Your task to perform on an android device: open app "ColorNote Notepad Notes" Image 0: 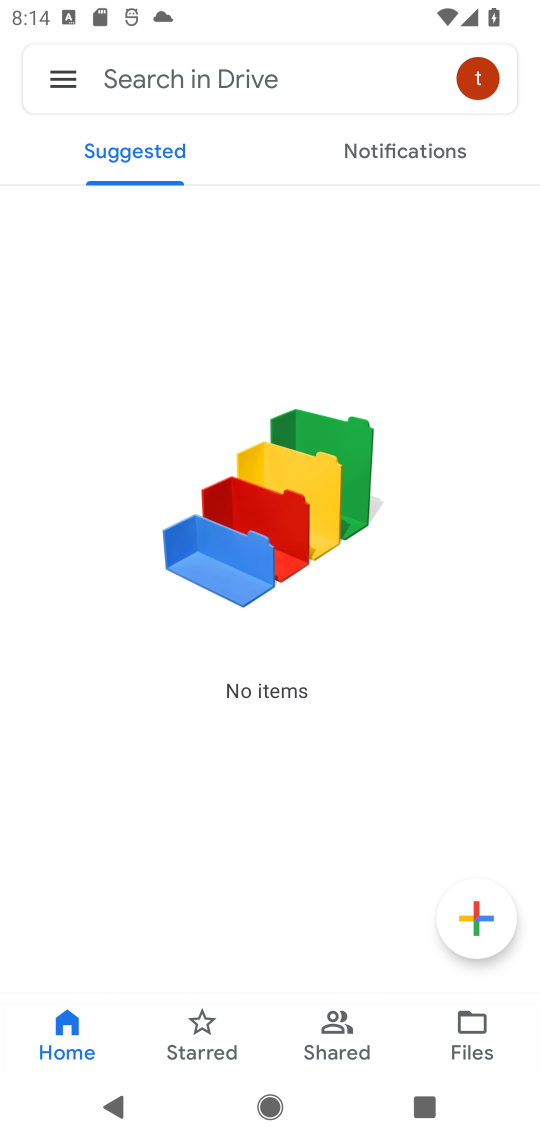
Step 0: press home button
Your task to perform on an android device: open app "ColorNote Notepad Notes" Image 1: 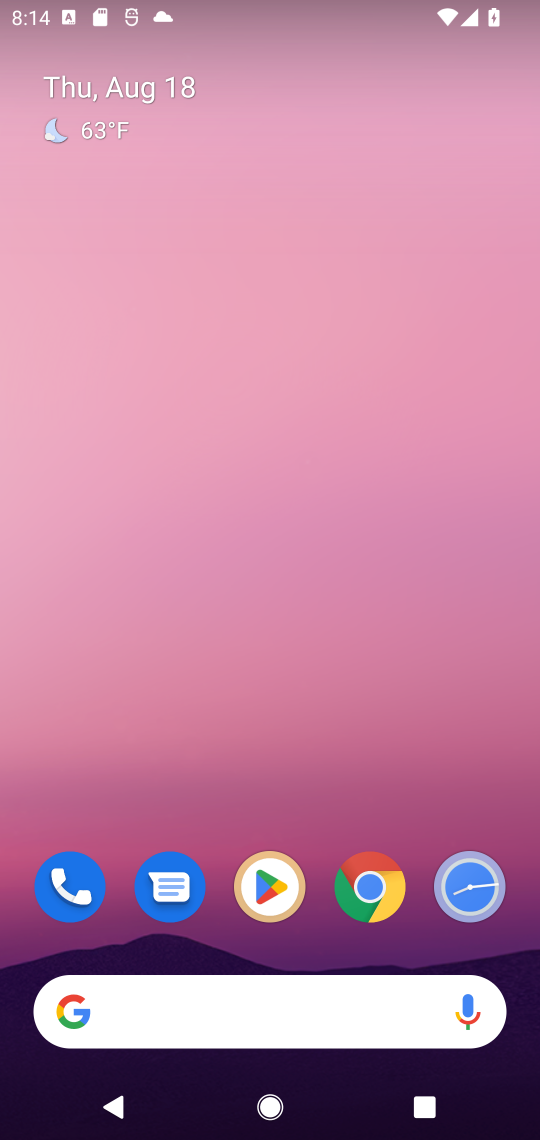
Step 1: click (266, 898)
Your task to perform on an android device: open app "ColorNote Notepad Notes" Image 2: 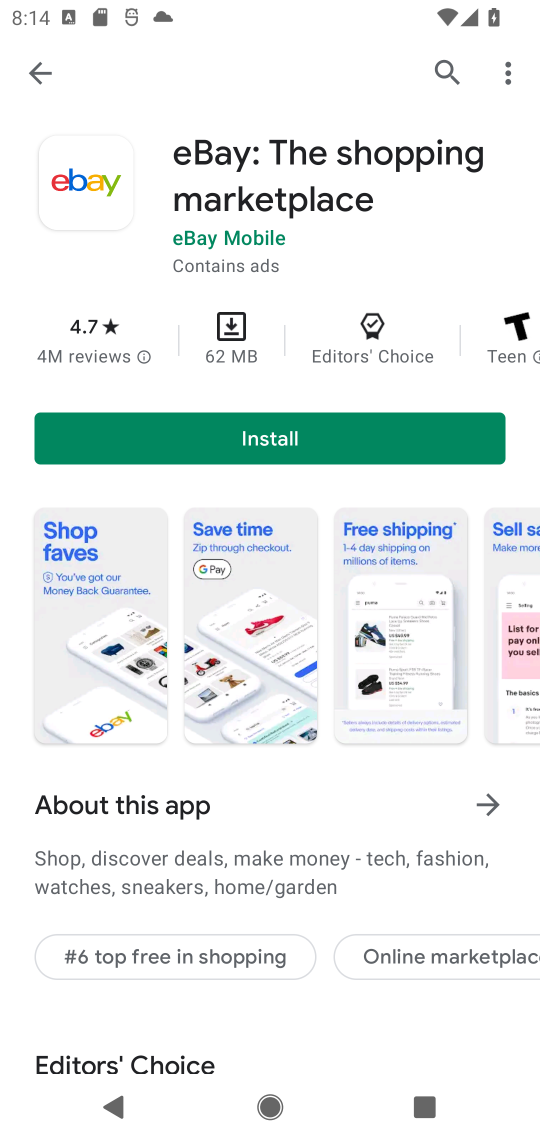
Step 2: click (448, 68)
Your task to perform on an android device: open app "ColorNote Notepad Notes" Image 3: 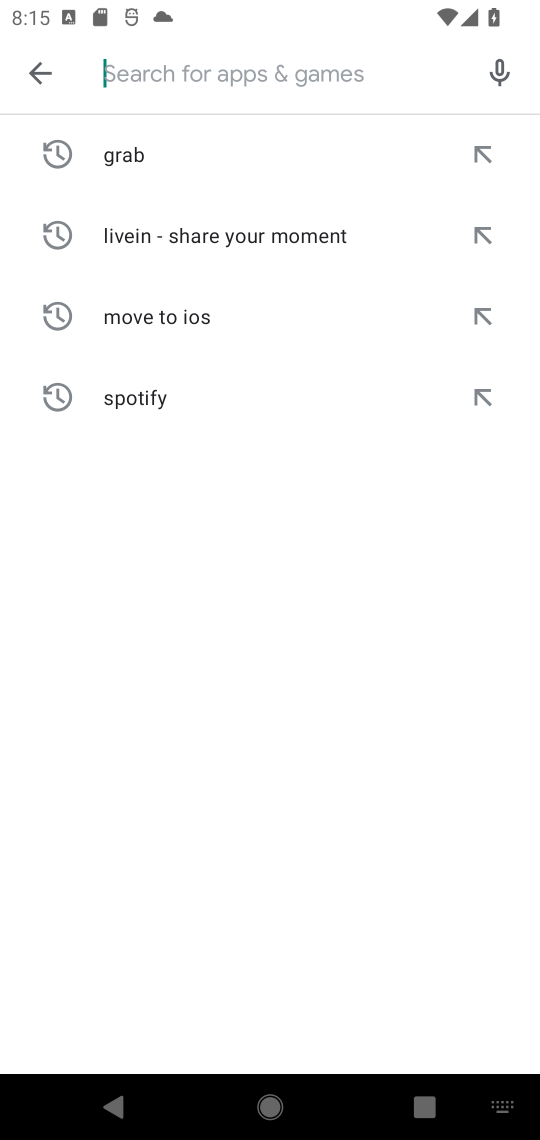
Step 3: type "ColorNote Notepad Notes"
Your task to perform on an android device: open app "ColorNote Notepad Notes" Image 4: 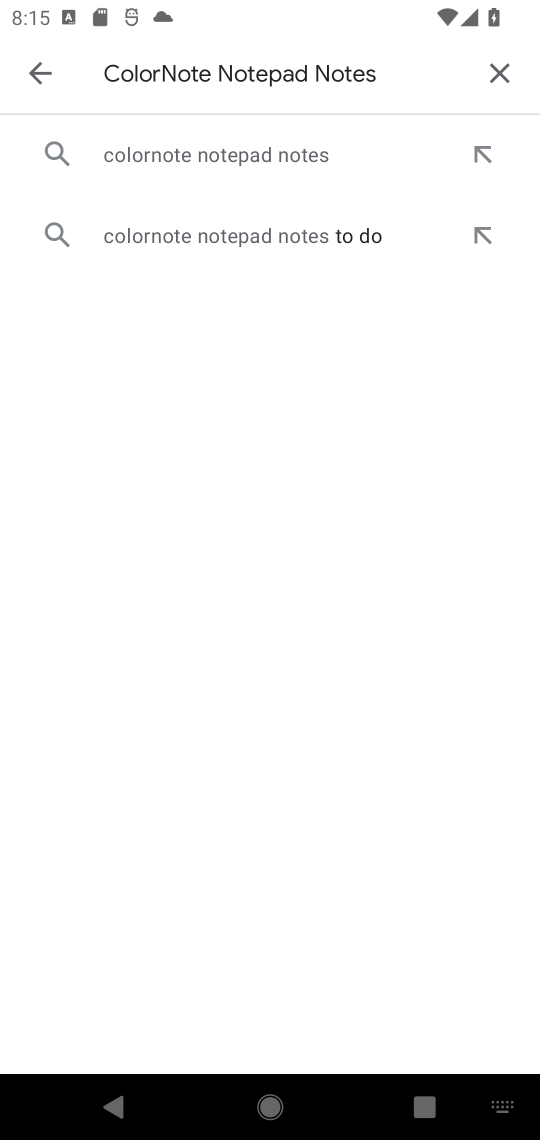
Step 4: click (265, 158)
Your task to perform on an android device: open app "ColorNote Notepad Notes" Image 5: 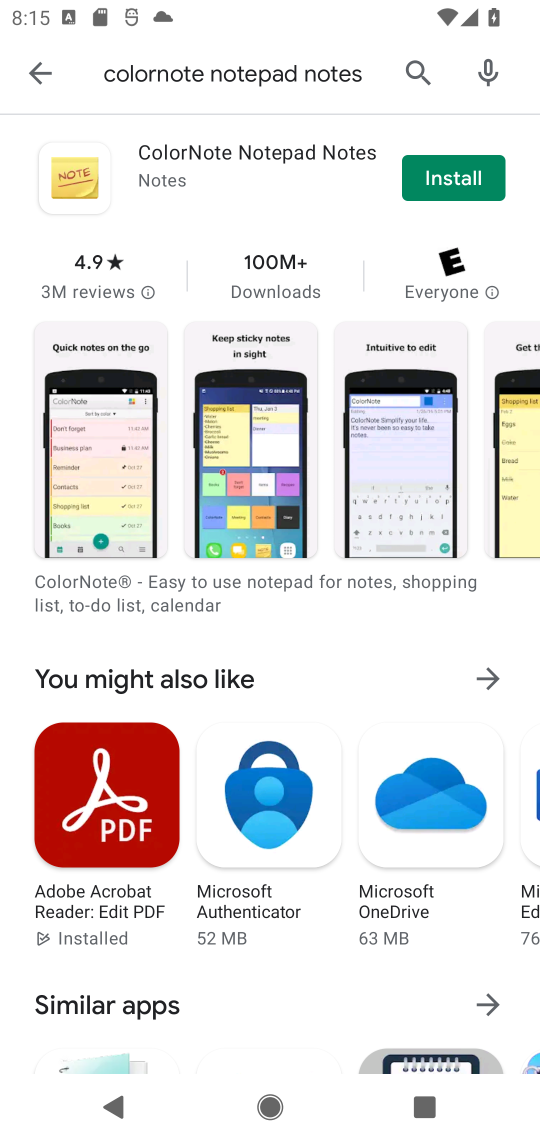
Step 5: task complete